Your task to perform on an android device: toggle translation in the chrome app Image 0: 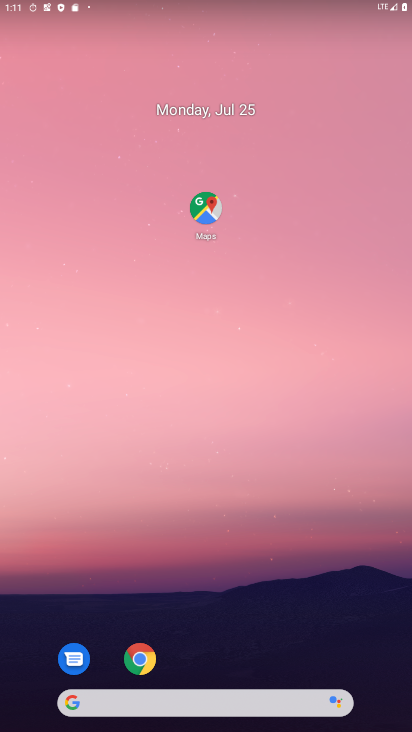
Step 0: click (128, 667)
Your task to perform on an android device: toggle translation in the chrome app Image 1: 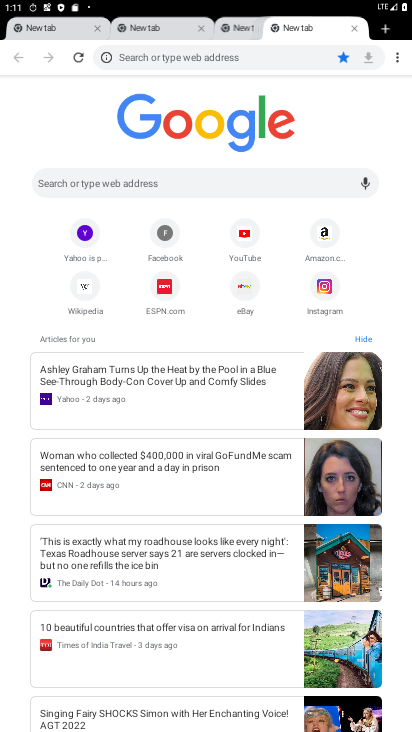
Step 1: click (398, 58)
Your task to perform on an android device: toggle translation in the chrome app Image 2: 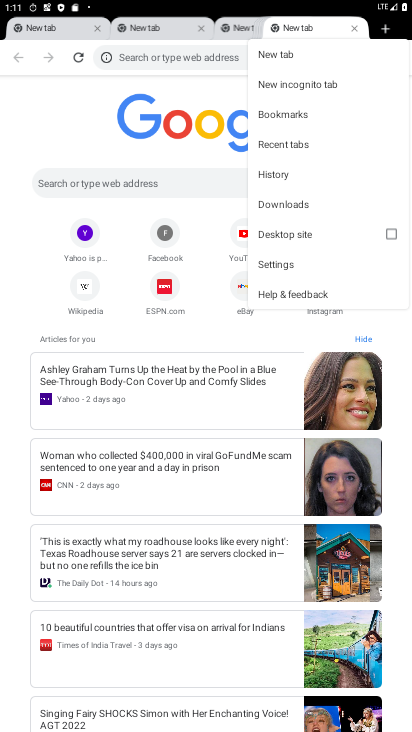
Step 2: click (273, 263)
Your task to perform on an android device: toggle translation in the chrome app Image 3: 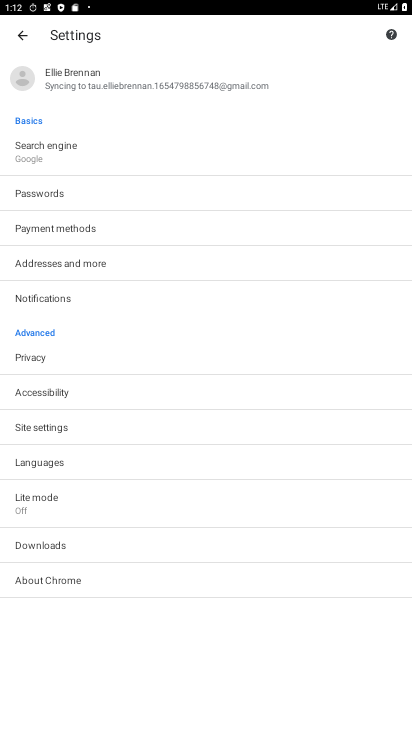
Step 3: click (39, 467)
Your task to perform on an android device: toggle translation in the chrome app Image 4: 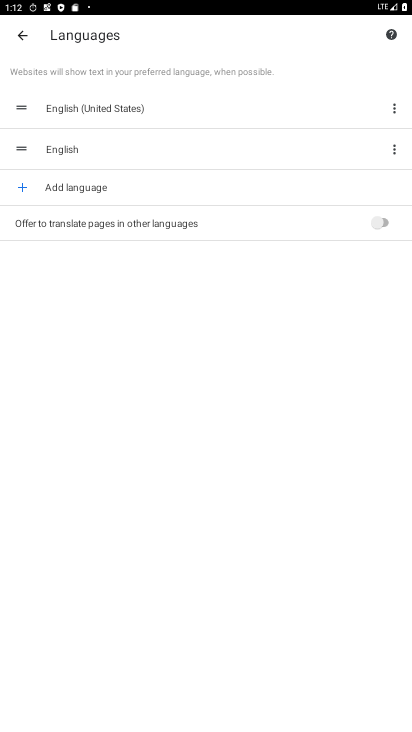
Step 4: click (385, 224)
Your task to perform on an android device: toggle translation in the chrome app Image 5: 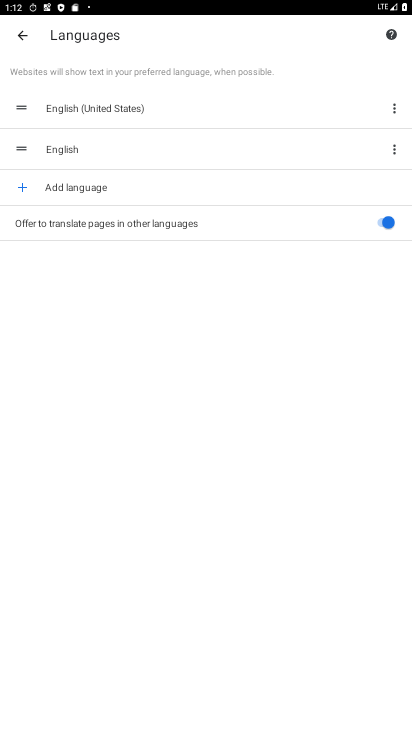
Step 5: task complete